Your task to perform on an android device: stop showing notifications on the lock screen Image 0: 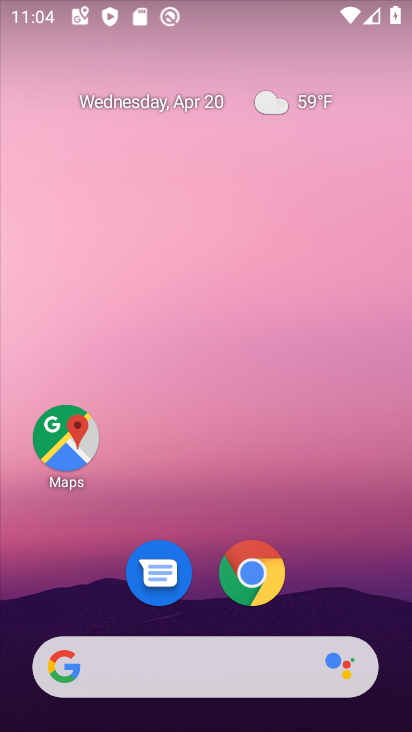
Step 0: drag from (359, 616) to (371, 6)
Your task to perform on an android device: stop showing notifications on the lock screen Image 1: 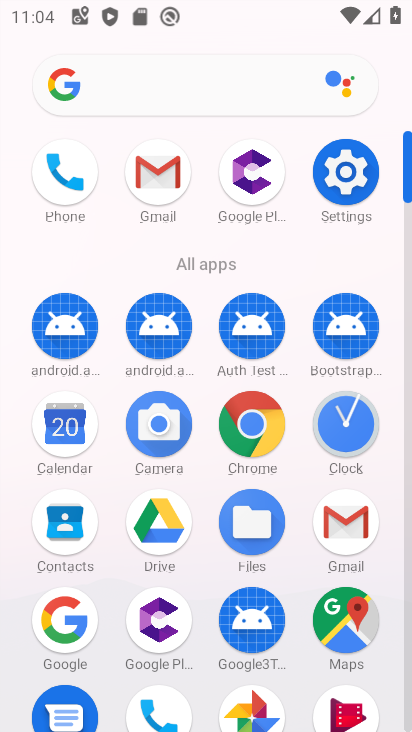
Step 1: click (347, 176)
Your task to perform on an android device: stop showing notifications on the lock screen Image 2: 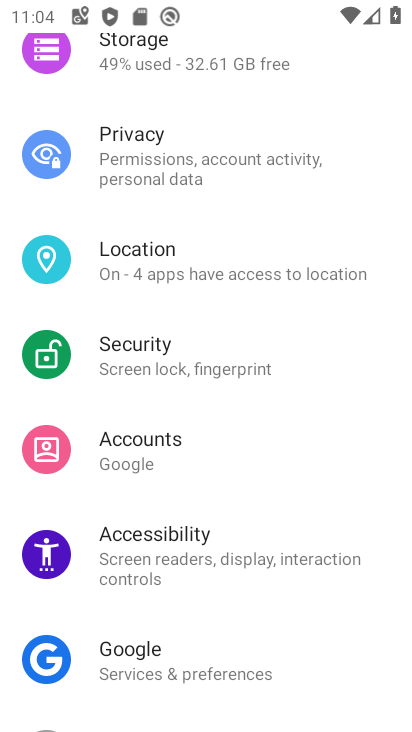
Step 2: drag from (379, 246) to (350, 443)
Your task to perform on an android device: stop showing notifications on the lock screen Image 3: 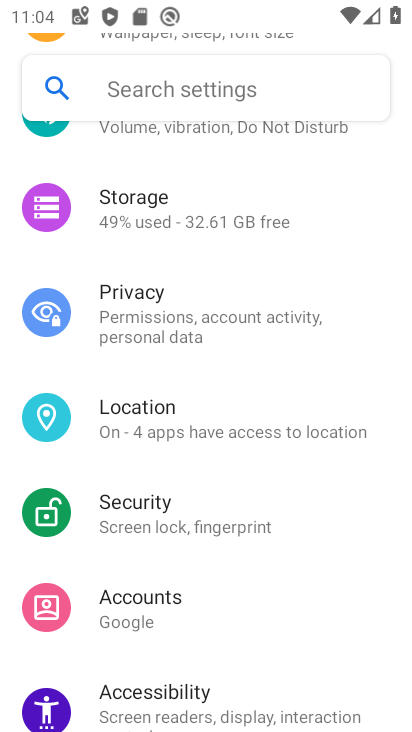
Step 3: drag from (379, 274) to (354, 461)
Your task to perform on an android device: stop showing notifications on the lock screen Image 4: 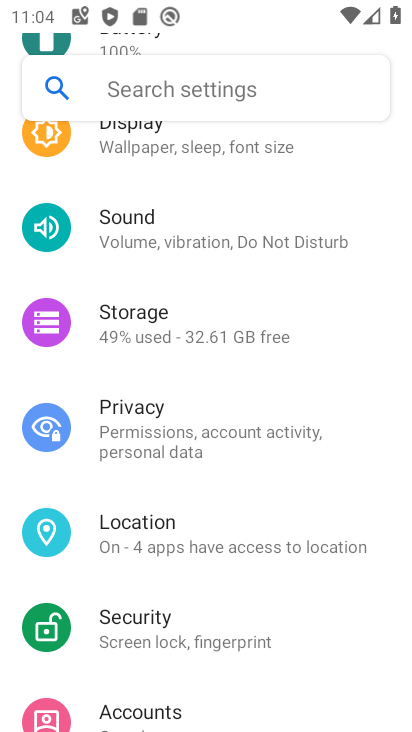
Step 4: drag from (395, 243) to (349, 513)
Your task to perform on an android device: stop showing notifications on the lock screen Image 5: 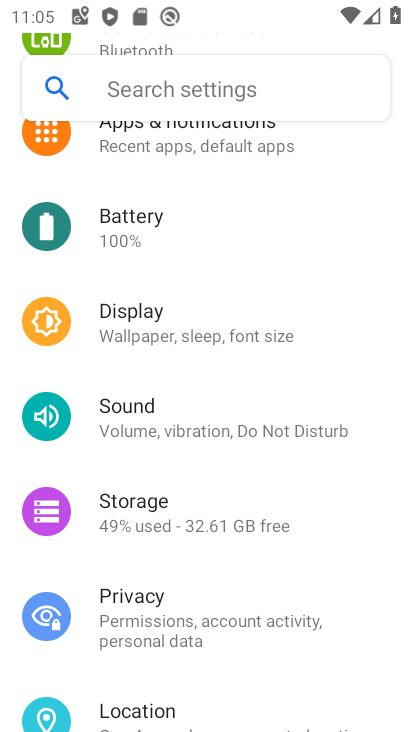
Step 5: drag from (368, 269) to (348, 531)
Your task to perform on an android device: stop showing notifications on the lock screen Image 6: 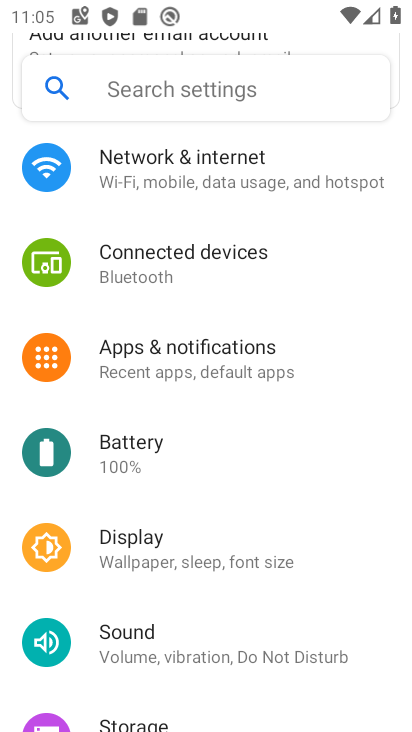
Step 6: click (177, 361)
Your task to perform on an android device: stop showing notifications on the lock screen Image 7: 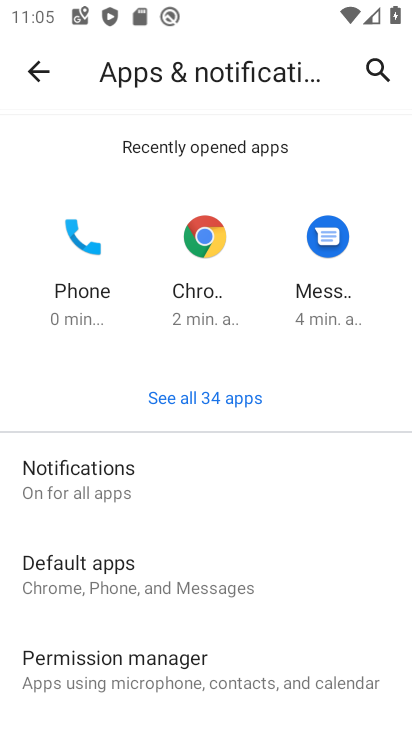
Step 7: click (83, 494)
Your task to perform on an android device: stop showing notifications on the lock screen Image 8: 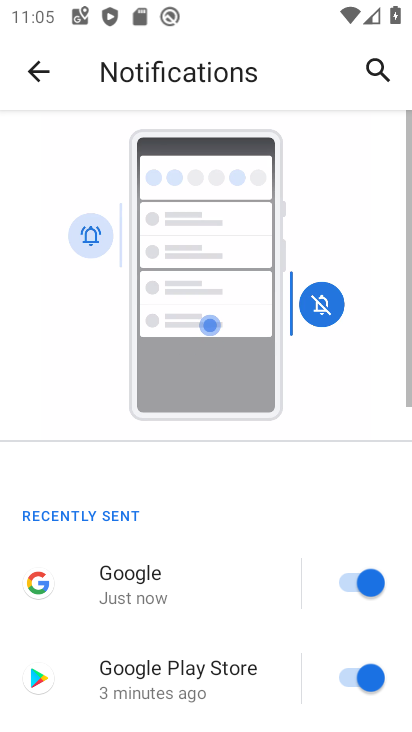
Step 8: drag from (272, 627) to (251, 119)
Your task to perform on an android device: stop showing notifications on the lock screen Image 9: 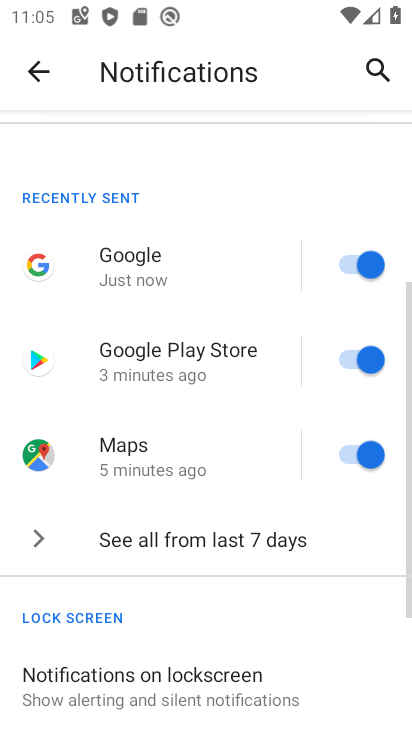
Step 9: drag from (182, 552) to (164, 110)
Your task to perform on an android device: stop showing notifications on the lock screen Image 10: 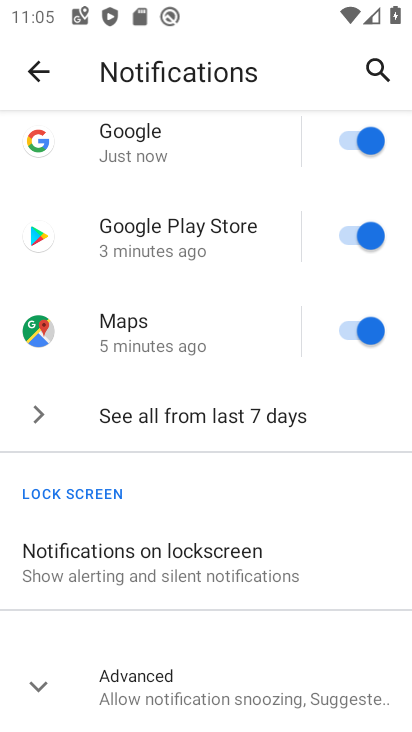
Step 10: click (112, 573)
Your task to perform on an android device: stop showing notifications on the lock screen Image 11: 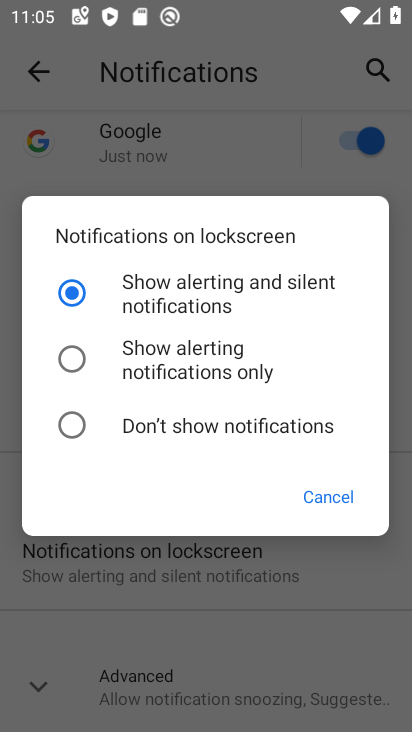
Step 11: click (66, 425)
Your task to perform on an android device: stop showing notifications on the lock screen Image 12: 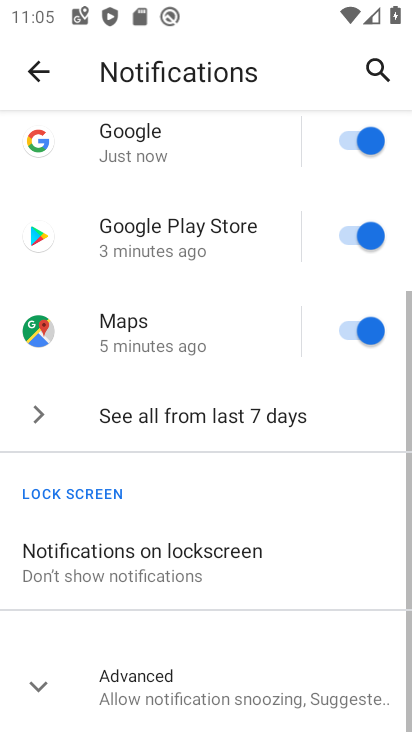
Step 12: task complete